Your task to perform on an android device: move a message to another label in the gmail app Image 0: 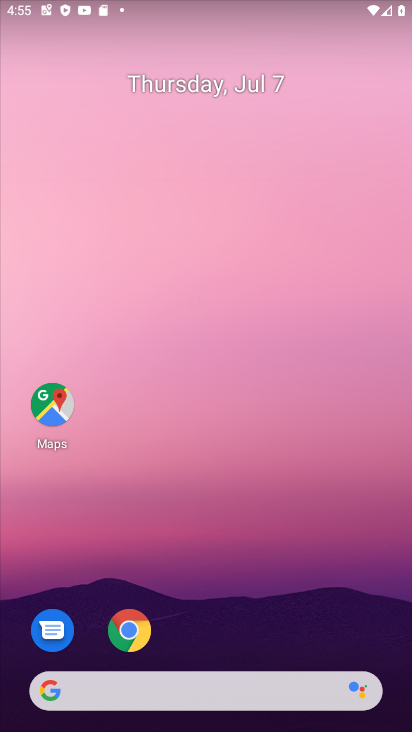
Step 0: drag from (185, 665) to (195, 54)
Your task to perform on an android device: move a message to another label in the gmail app Image 1: 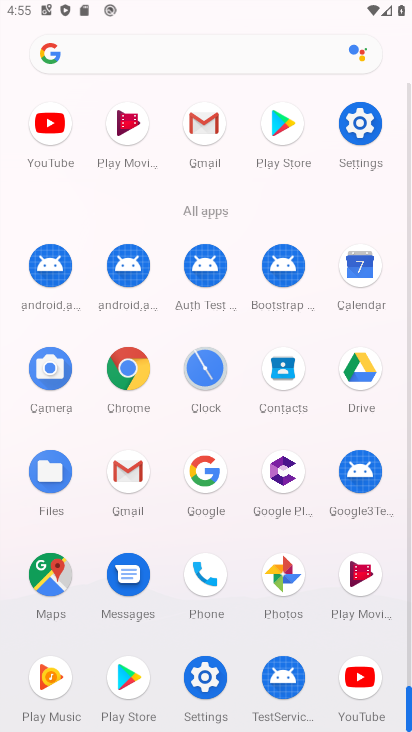
Step 1: click (219, 121)
Your task to perform on an android device: move a message to another label in the gmail app Image 2: 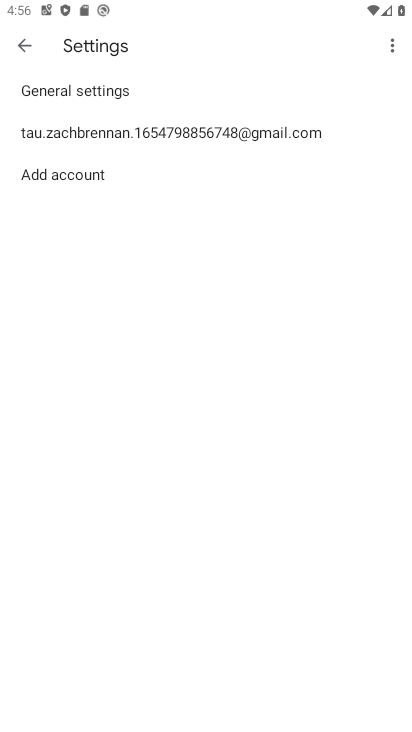
Step 2: click (173, 146)
Your task to perform on an android device: move a message to another label in the gmail app Image 3: 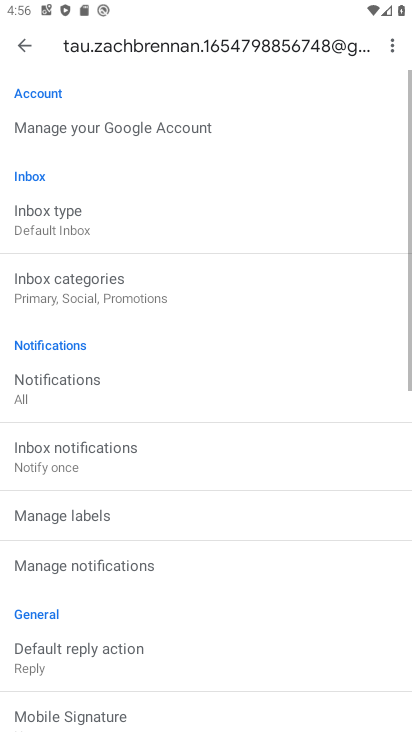
Step 3: click (12, 47)
Your task to perform on an android device: move a message to another label in the gmail app Image 4: 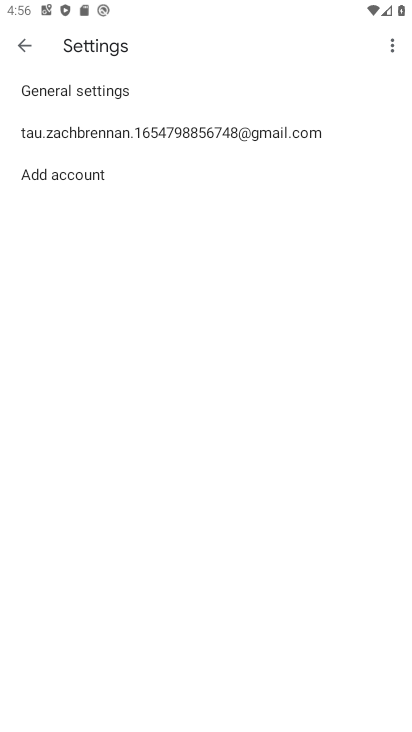
Step 4: click (25, 48)
Your task to perform on an android device: move a message to another label in the gmail app Image 5: 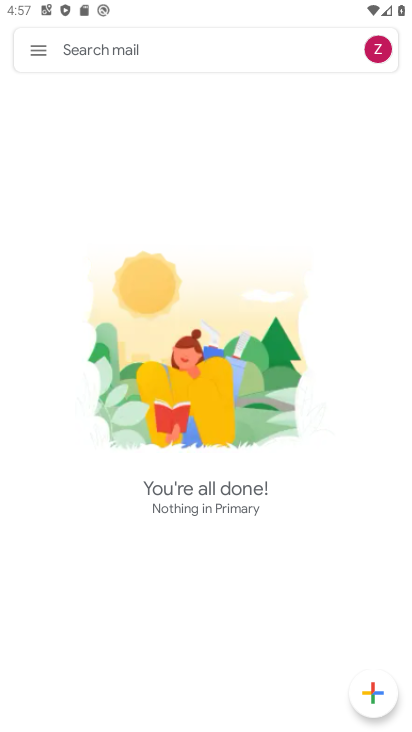
Step 5: task complete